Your task to perform on an android device: Open calendar and show me the second week of next month Image 0: 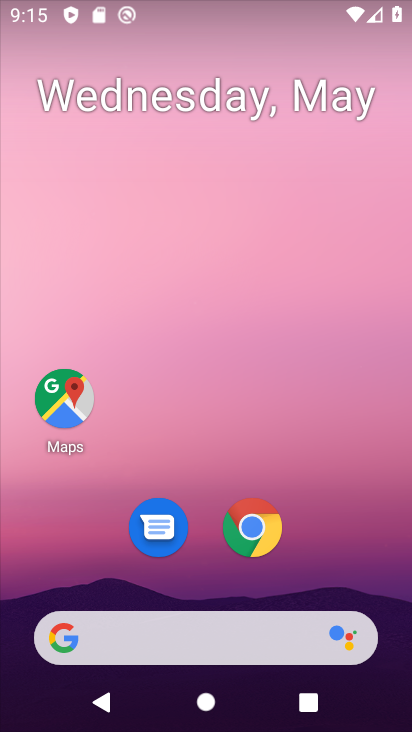
Step 0: drag from (212, 593) to (181, 58)
Your task to perform on an android device: Open calendar and show me the second week of next month Image 1: 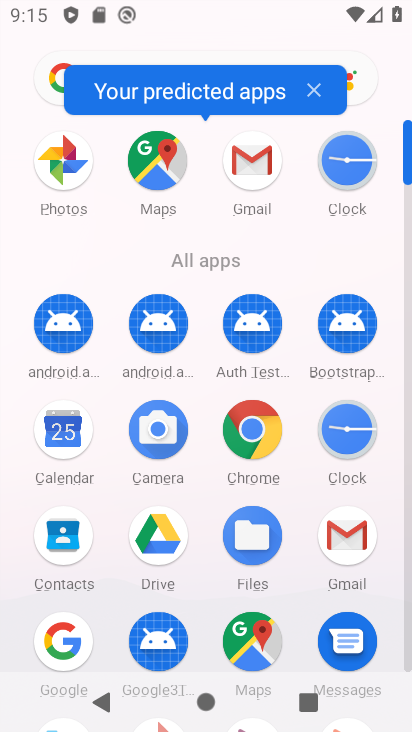
Step 1: click (50, 453)
Your task to perform on an android device: Open calendar and show me the second week of next month Image 2: 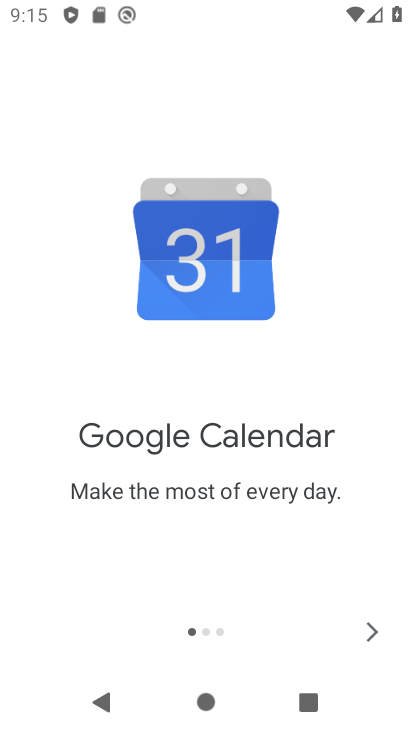
Step 2: click (357, 629)
Your task to perform on an android device: Open calendar and show me the second week of next month Image 3: 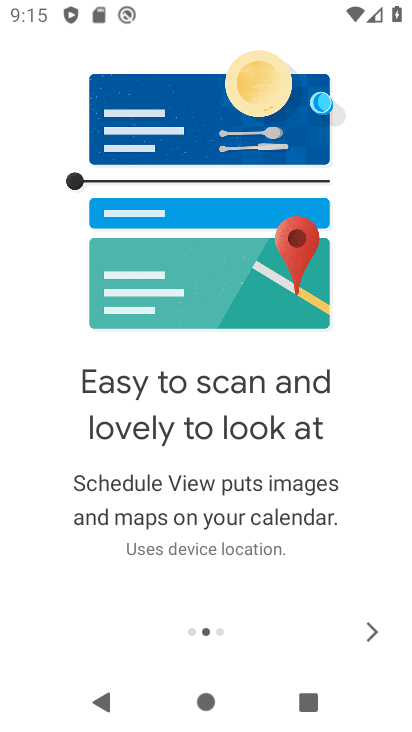
Step 3: click (357, 629)
Your task to perform on an android device: Open calendar and show me the second week of next month Image 4: 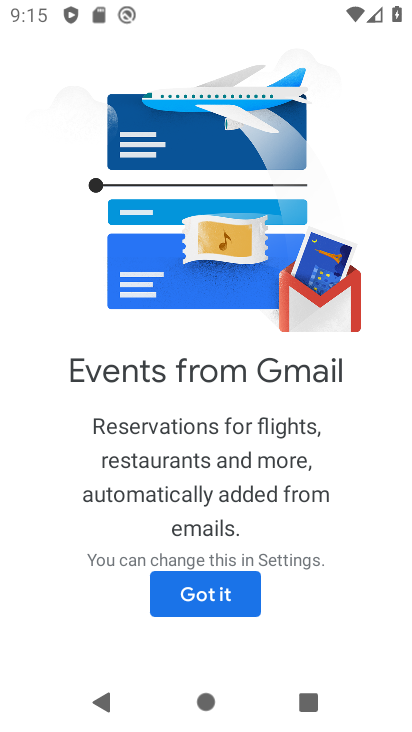
Step 4: click (357, 629)
Your task to perform on an android device: Open calendar and show me the second week of next month Image 5: 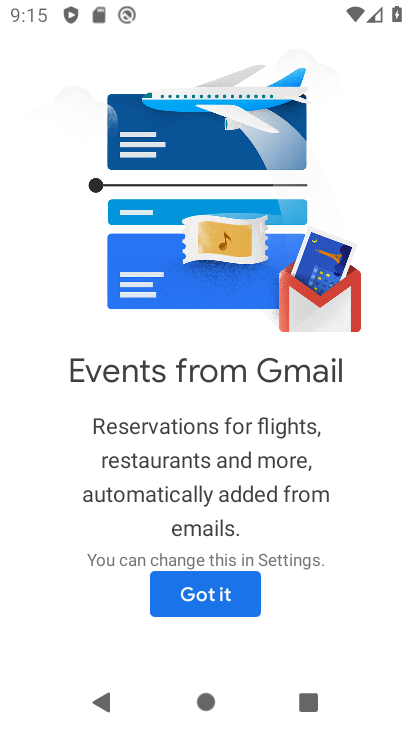
Step 5: click (245, 593)
Your task to perform on an android device: Open calendar and show me the second week of next month Image 6: 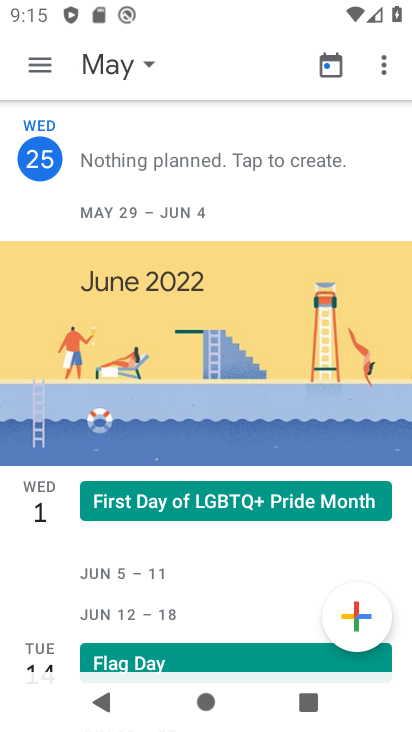
Step 6: click (31, 43)
Your task to perform on an android device: Open calendar and show me the second week of next month Image 7: 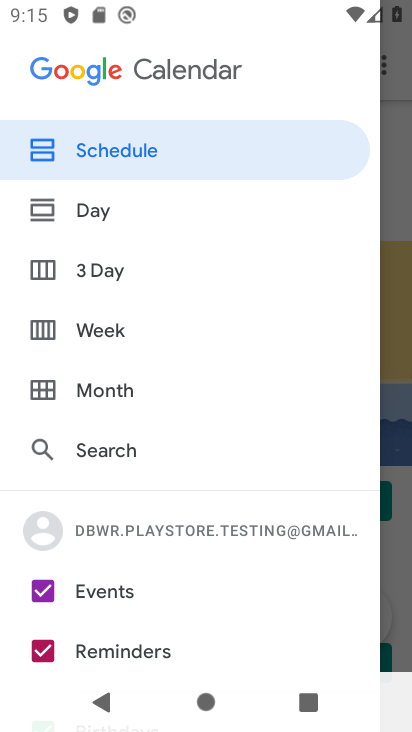
Step 7: click (103, 320)
Your task to perform on an android device: Open calendar and show me the second week of next month Image 8: 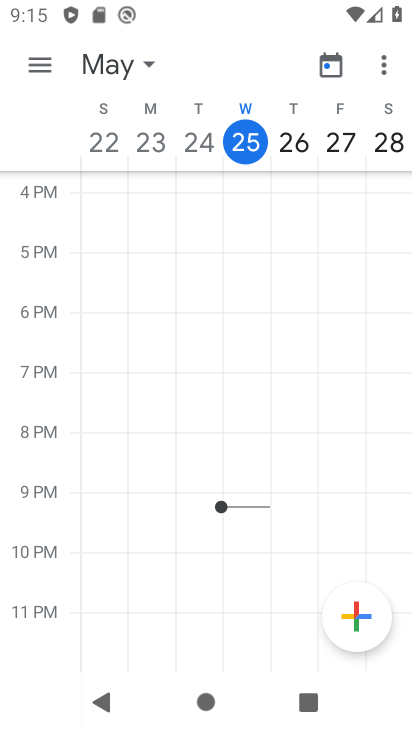
Step 8: task complete